Your task to perform on an android device: Open ESPN.com Image 0: 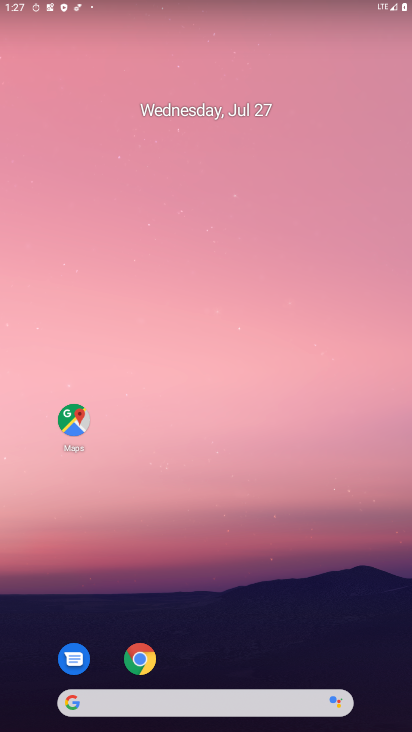
Step 0: drag from (347, 645) to (398, 59)
Your task to perform on an android device: Open ESPN.com Image 1: 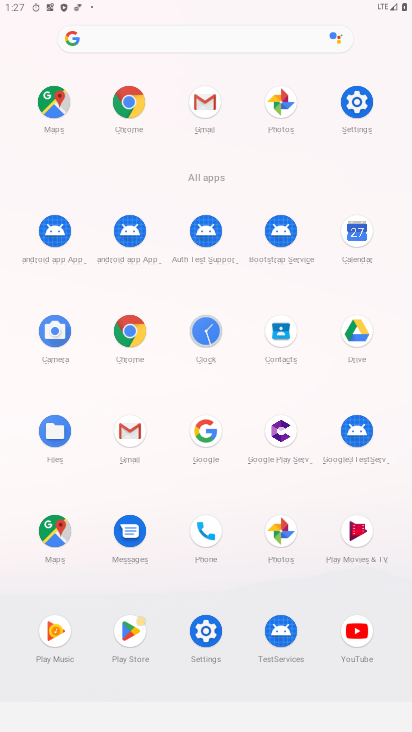
Step 1: click (136, 98)
Your task to perform on an android device: Open ESPN.com Image 2: 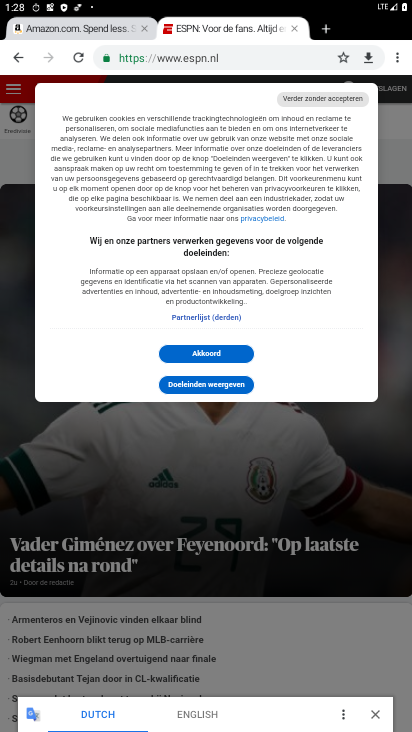
Step 2: click (214, 346)
Your task to perform on an android device: Open ESPN.com Image 3: 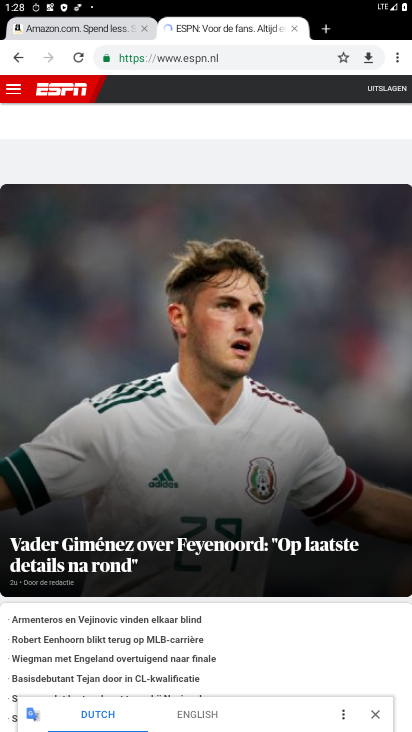
Step 3: task complete